Your task to perform on an android device: turn on improve location accuracy Image 0: 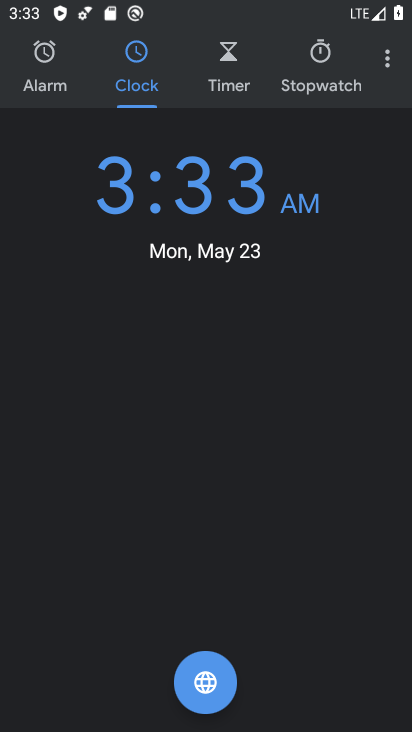
Step 0: press home button
Your task to perform on an android device: turn on improve location accuracy Image 1: 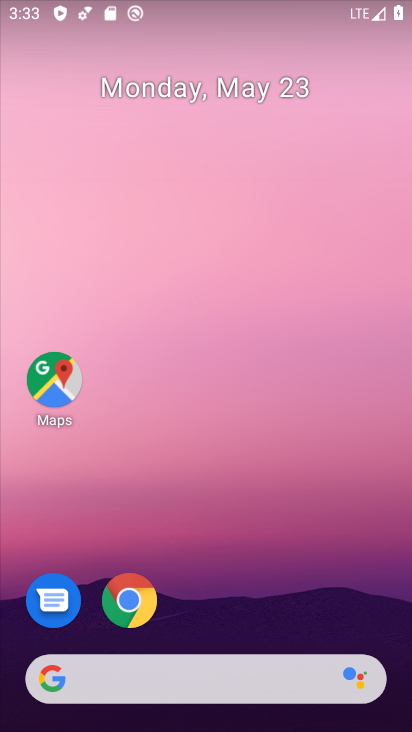
Step 1: drag from (242, 633) to (254, 11)
Your task to perform on an android device: turn on improve location accuracy Image 2: 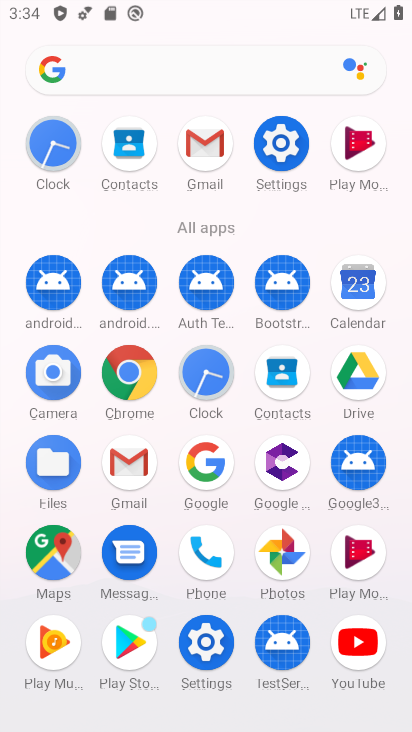
Step 2: click (277, 151)
Your task to perform on an android device: turn on improve location accuracy Image 3: 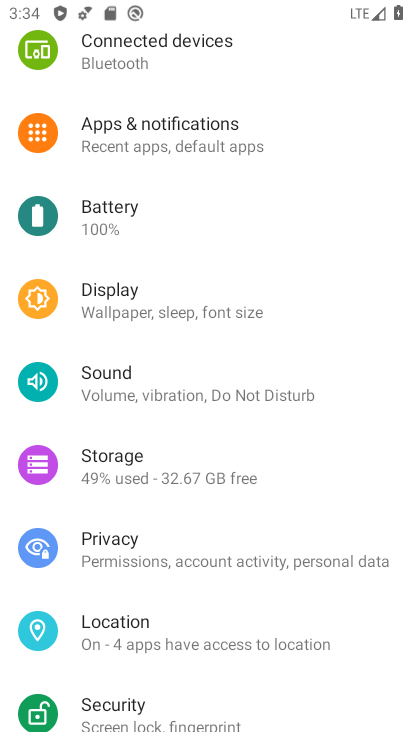
Step 3: click (91, 635)
Your task to perform on an android device: turn on improve location accuracy Image 4: 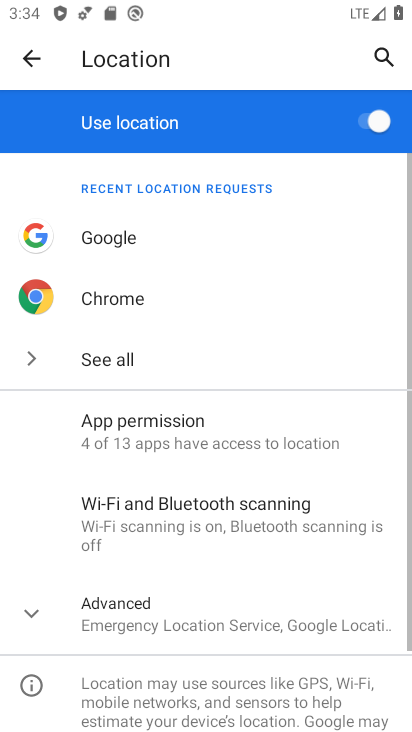
Step 4: click (30, 616)
Your task to perform on an android device: turn on improve location accuracy Image 5: 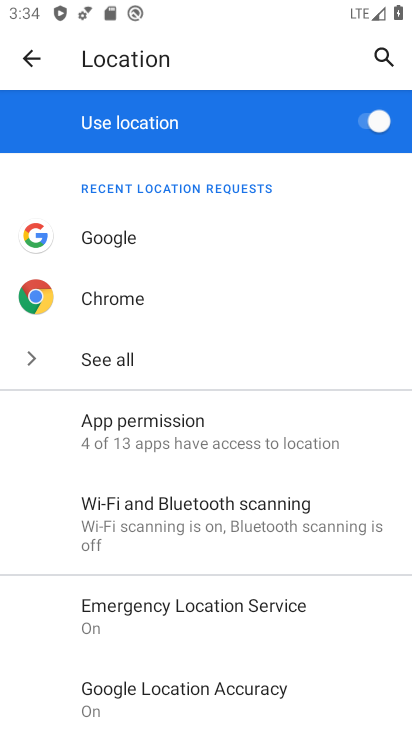
Step 5: drag from (180, 574) to (151, 282)
Your task to perform on an android device: turn on improve location accuracy Image 6: 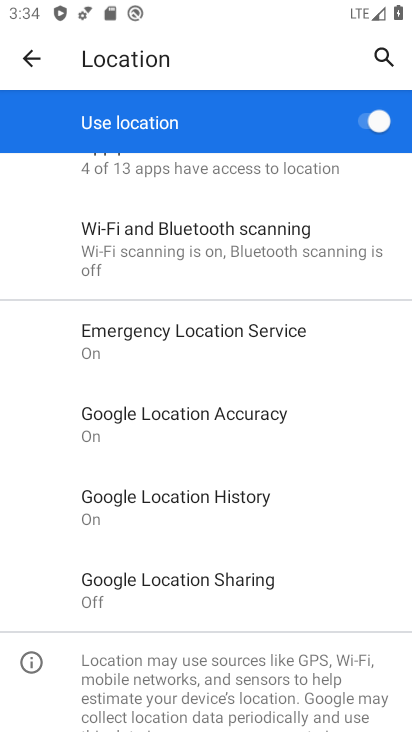
Step 6: click (106, 433)
Your task to perform on an android device: turn on improve location accuracy Image 7: 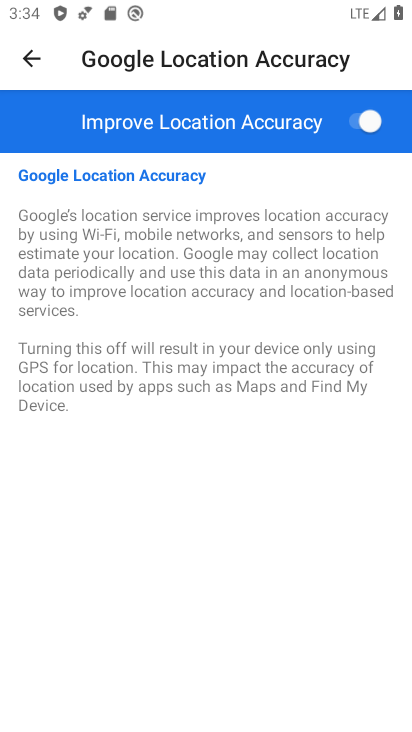
Step 7: task complete